Your task to perform on an android device: check data usage Image 0: 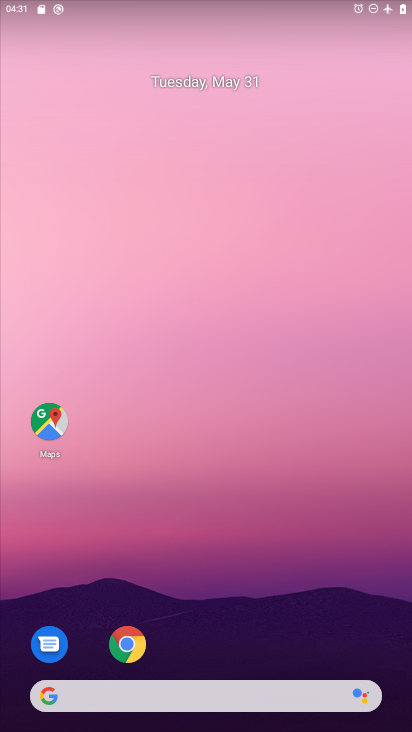
Step 0: drag from (243, 551) to (260, 35)
Your task to perform on an android device: check data usage Image 1: 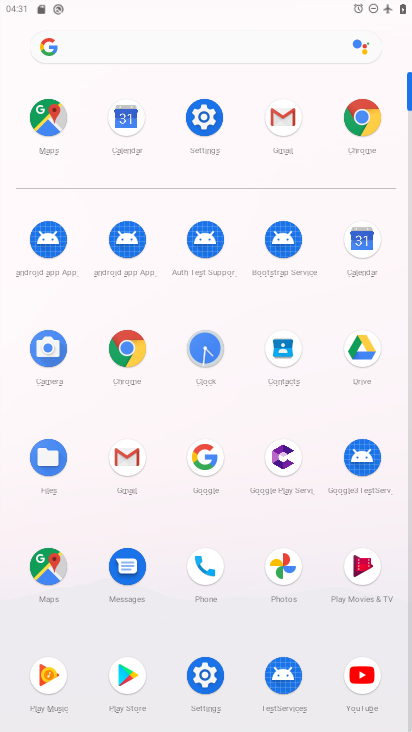
Step 1: click (197, 107)
Your task to perform on an android device: check data usage Image 2: 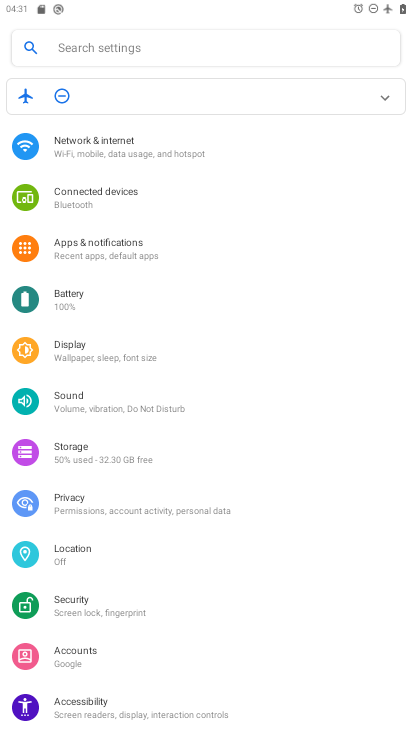
Step 2: drag from (165, 593) to (194, 533)
Your task to perform on an android device: check data usage Image 3: 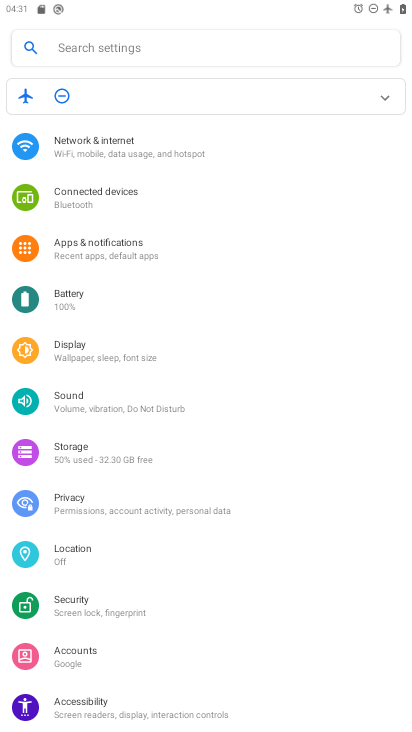
Step 3: click (105, 153)
Your task to perform on an android device: check data usage Image 4: 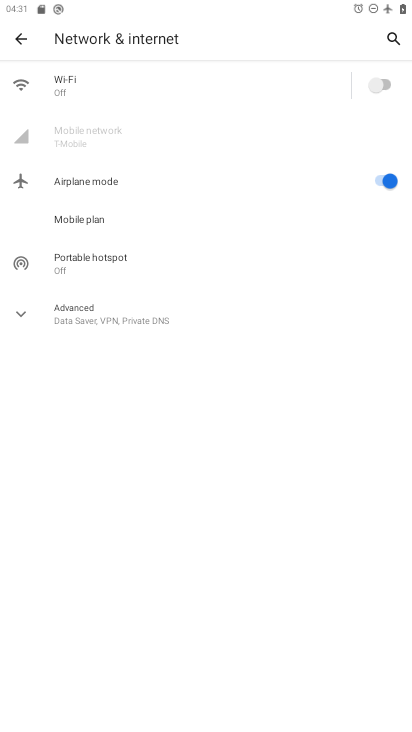
Step 4: click (113, 134)
Your task to perform on an android device: check data usage Image 5: 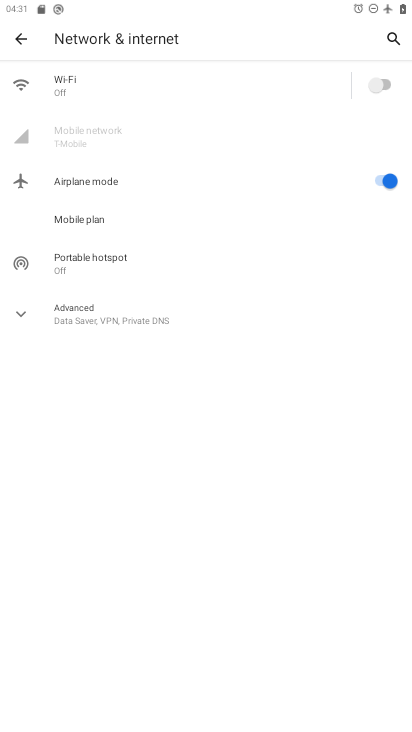
Step 5: click (114, 133)
Your task to perform on an android device: check data usage Image 6: 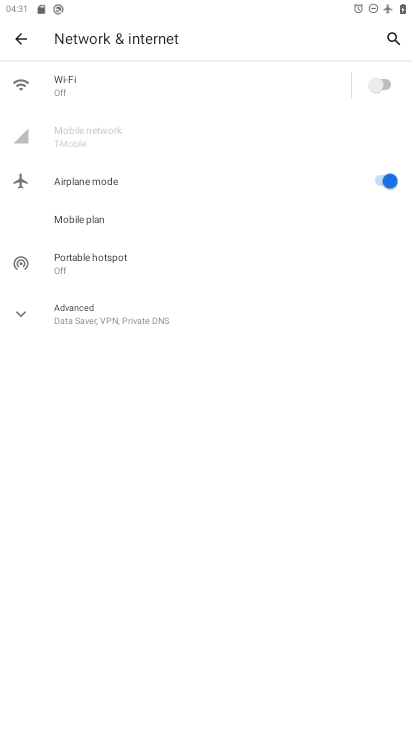
Step 6: click (114, 133)
Your task to perform on an android device: check data usage Image 7: 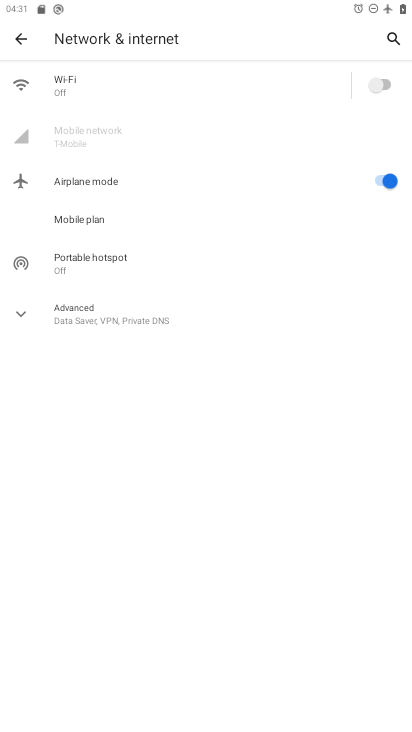
Step 7: click (114, 133)
Your task to perform on an android device: check data usage Image 8: 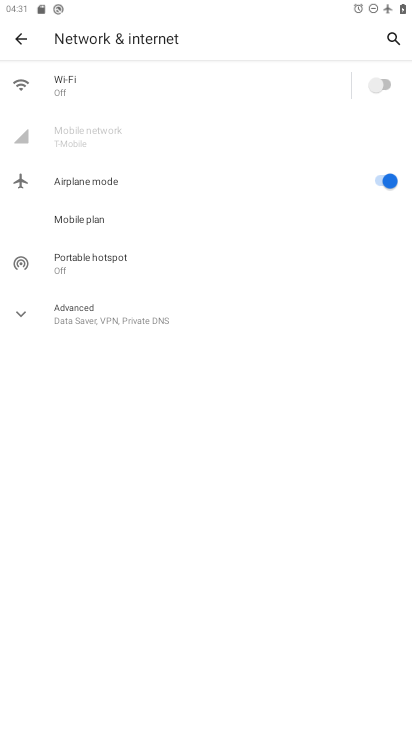
Step 8: click (114, 133)
Your task to perform on an android device: check data usage Image 9: 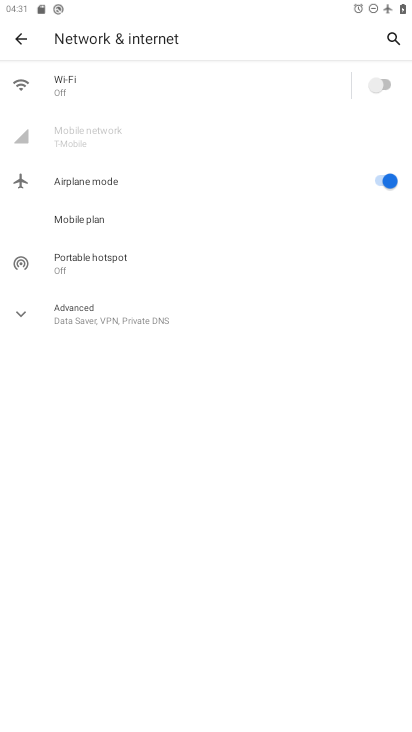
Step 9: task complete